Your task to perform on an android device: turn vacation reply on in the gmail app Image 0: 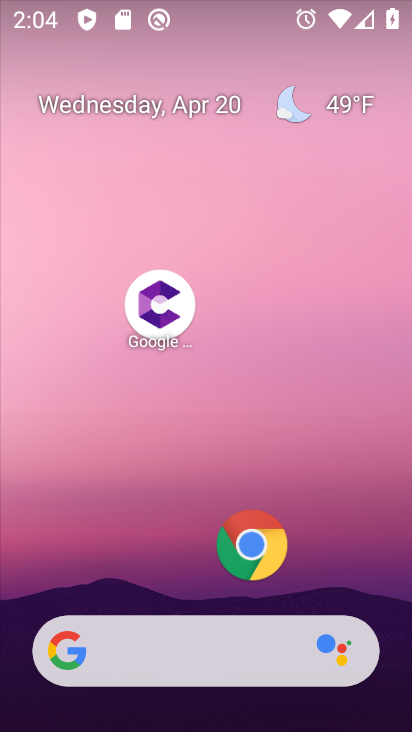
Step 0: drag from (147, 571) to (235, 5)
Your task to perform on an android device: turn vacation reply on in the gmail app Image 1: 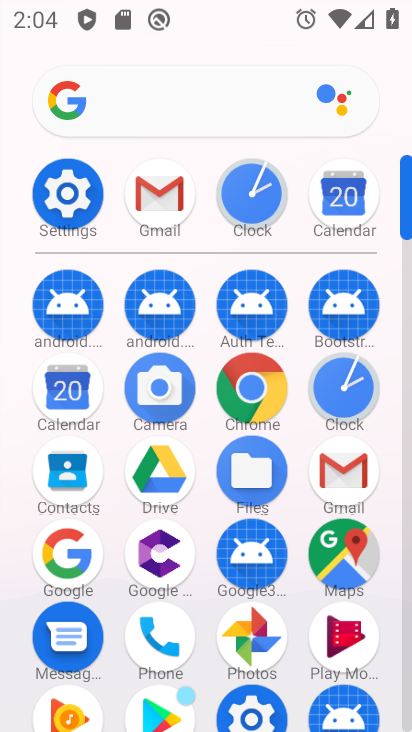
Step 1: click (164, 192)
Your task to perform on an android device: turn vacation reply on in the gmail app Image 2: 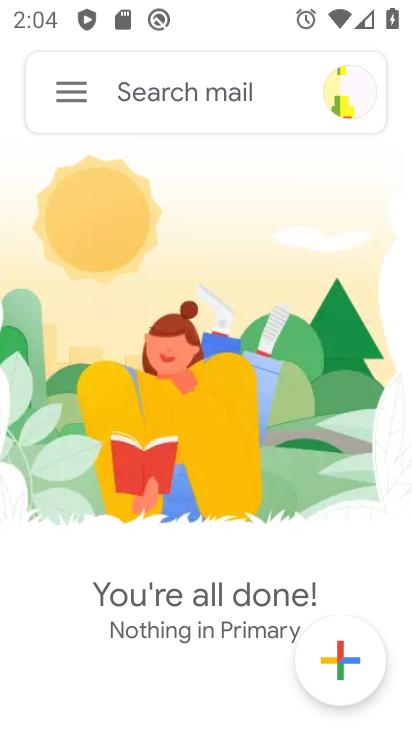
Step 2: click (74, 91)
Your task to perform on an android device: turn vacation reply on in the gmail app Image 3: 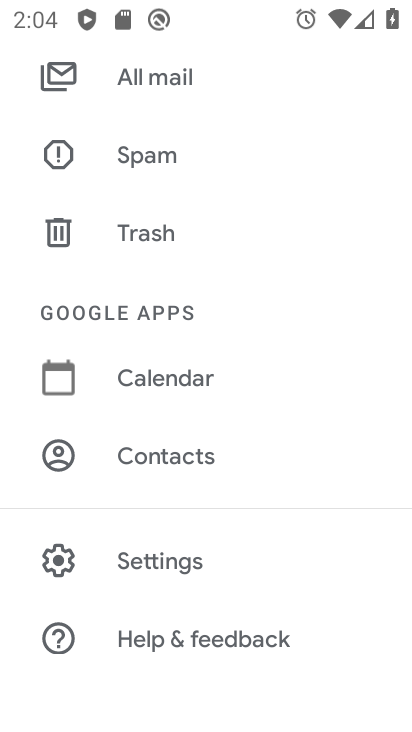
Step 3: click (169, 568)
Your task to perform on an android device: turn vacation reply on in the gmail app Image 4: 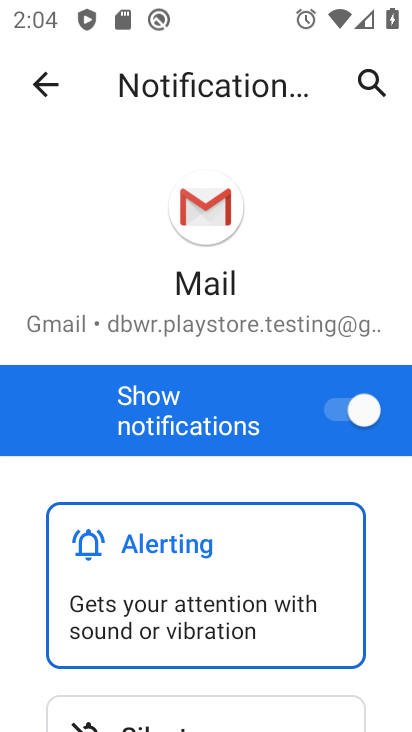
Step 4: press back button
Your task to perform on an android device: turn vacation reply on in the gmail app Image 5: 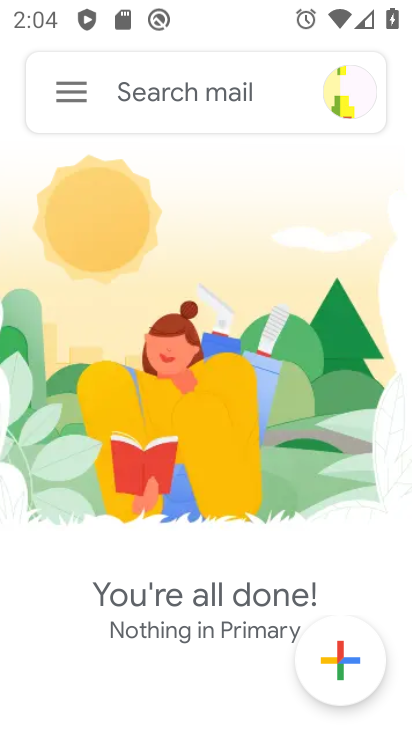
Step 5: click (66, 98)
Your task to perform on an android device: turn vacation reply on in the gmail app Image 6: 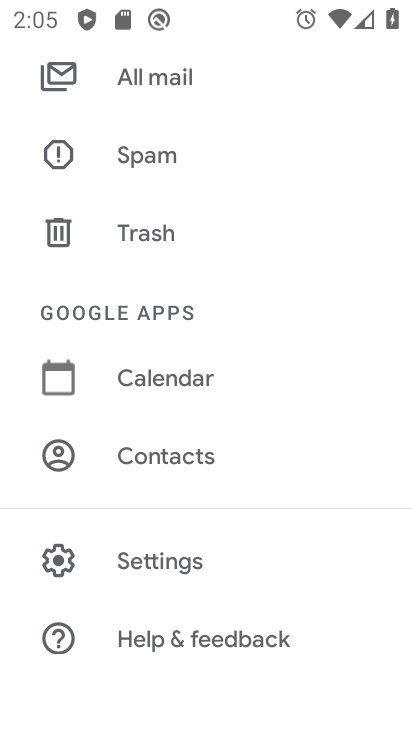
Step 6: click (161, 557)
Your task to perform on an android device: turn vacation reply on in the gmail app Image 7: 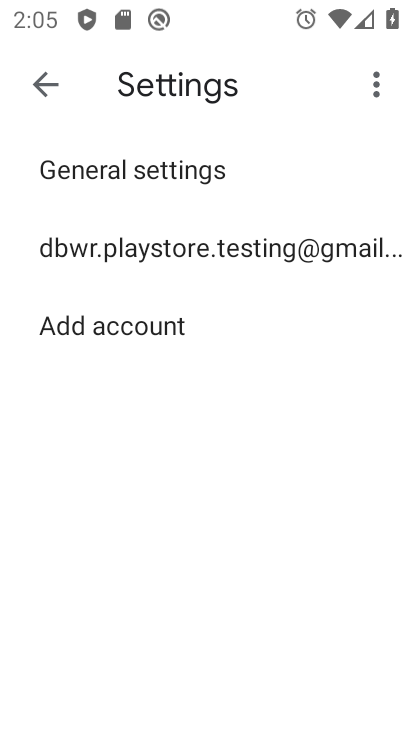
Step 7: click (197, 256)
Your task to perform on an android device: turn vacation reply on in the gmail app Image 8: 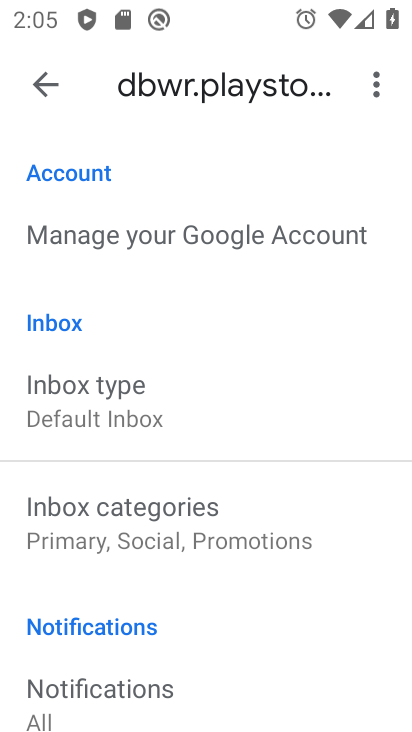
Step 8: drag from (173, 607) to (234, 369)
Your task to perform on an android device: turn vacation reply on in the gmail app Image 9: 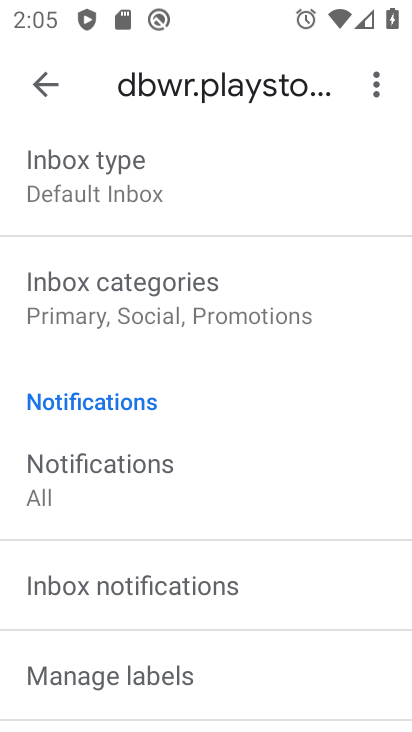
Step 9: drag from (206, 504) to (245, 403)
Your task to perform on an android device: turn vacation reply on in the gmail app Image 10: 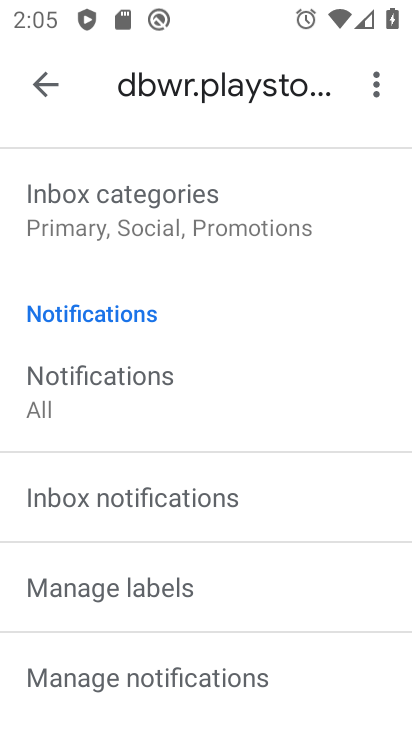
Step 10: drag from (211, 557) to (265, 427)
Your task to perform on an android device: turn vacation reply on in the gmail app Image 11: 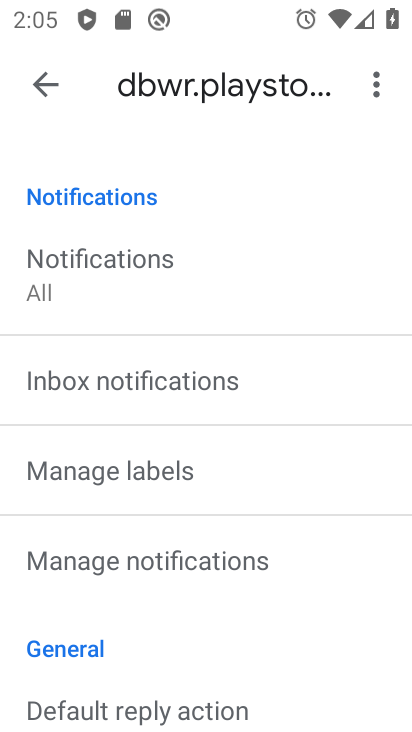
Step 11: drag from (158, 638) to (253, 455)
Your task to perform on an android device: turn vacation reply on in the gmail app Image 12: 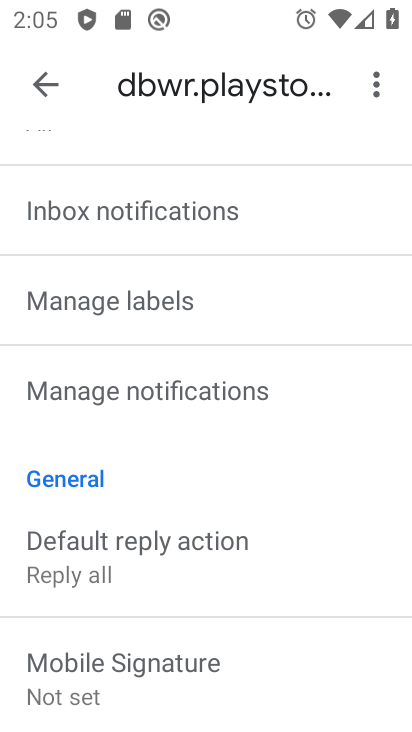
Step 12: drag from (226, 598) to (303, 422)
Your task to perform on an android device: turn vacation reply on in the gmail app Image 13: 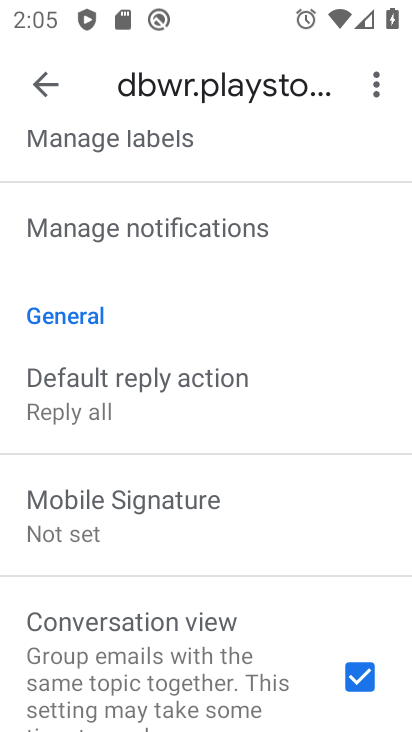
Step 13: drag from (188, 599) to (252, 432)
Your task to perform on an android device: turn vacation reply on in the gmail app Image 14: 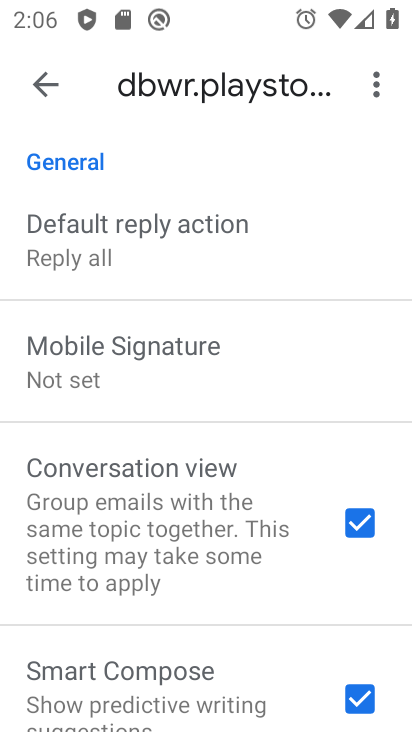
Step 14: drag from (205, 606) to (261, 410)
Your task to perform on an android device: turn vacation reply on in the gmail app Image 15: 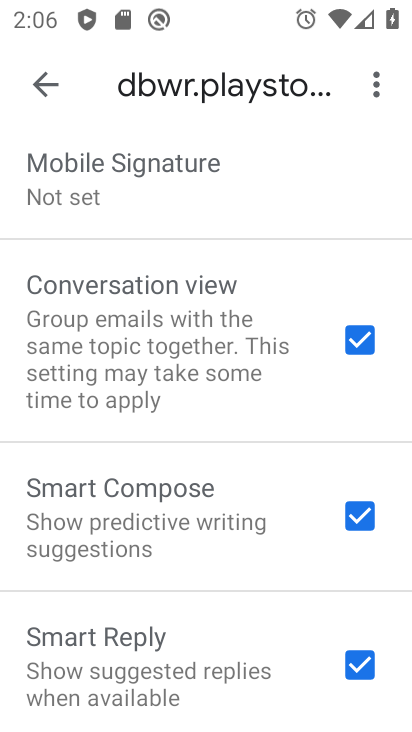
Step 15: drag from (184, 593) to (265, 382)
Your task to perform on an android device: turn vacation reply on in the gmail app Image 16: 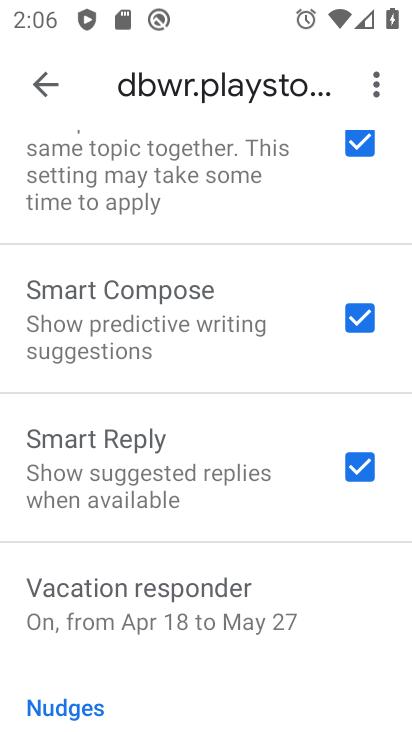
Step 16: click (232, 578)
Your task to perform on an android device: turn vacation reply on in the gmail app Image 17: 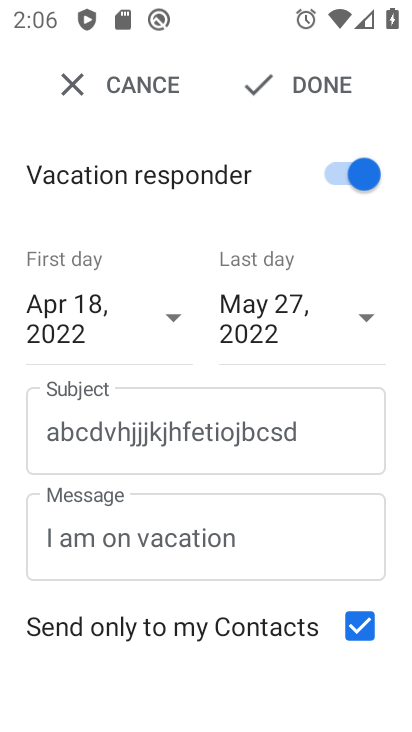
Step 17: task complete